Your task to perform on an android device: delete location history Image 0: 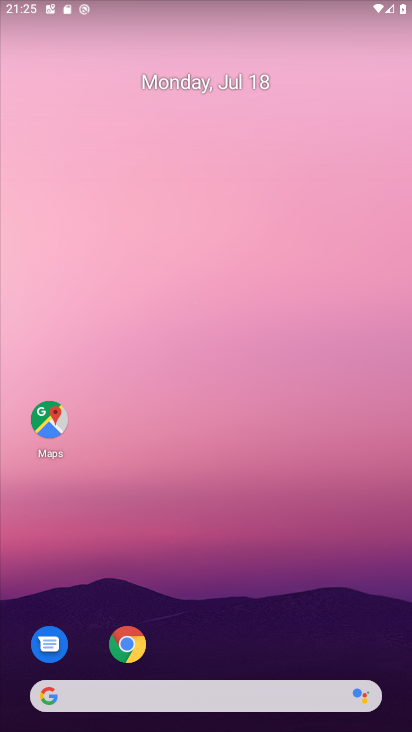
Step 0: drag from (245, 653) to (255, 184)
Your task to perform on an android device: delete location history Image 1: 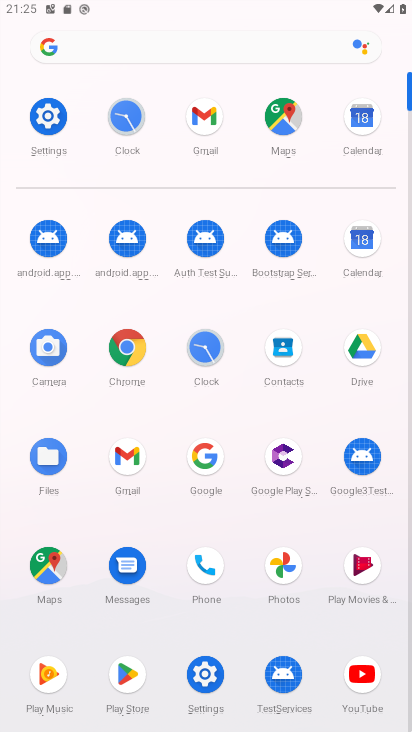
Step 1: click (58, 155)
Your task to perform on an android device: delete location history Image 2: 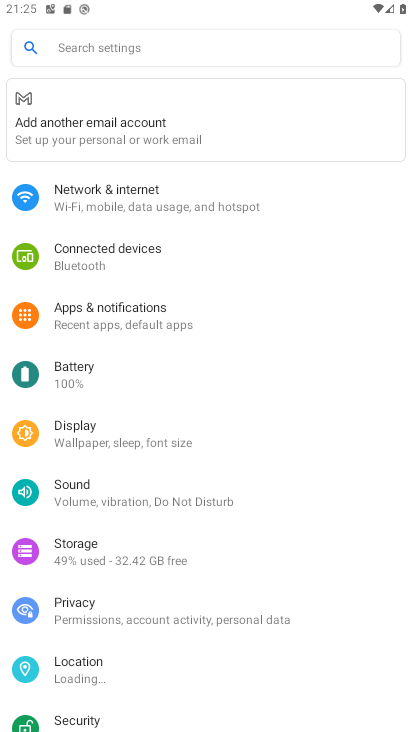
Step 2: task complete